Your task to perform on an android device: toggle notifications settings in the gmail app Image 0: 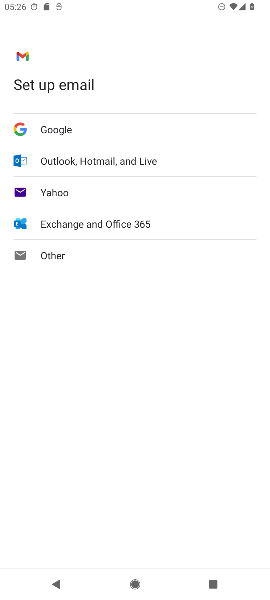
Step 0: press home button
Your task to perform on an android device: toggle notifications settings in the gmail app Image 1: 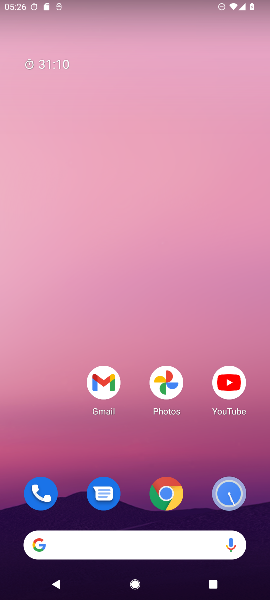
Step 1: drag from (65, 461) to (71, 213)
Your task to perform on an android device: toggle notifications settings in the gmail app Image 2: 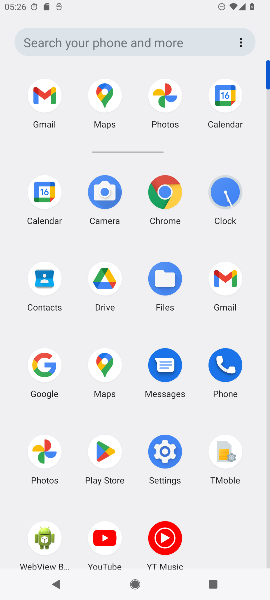
Step 2: click (224, 278)
Your task to perform on an android device: toggle notifications settings in the gmail app Image 3: 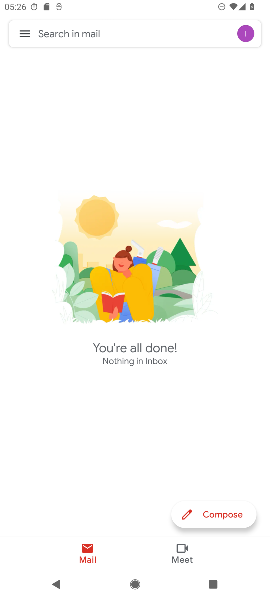
Step 3: click (30, 35)
Your task to perform on an android device: toggle notifications settings in the gmail app Image 4: 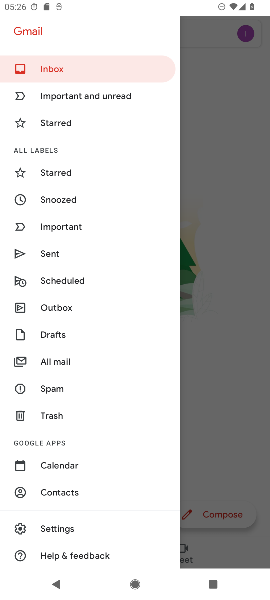
Step 4: click (110, 531)
Your task to perform on an android device: toggle notifications settings in the gmail app Image 5: 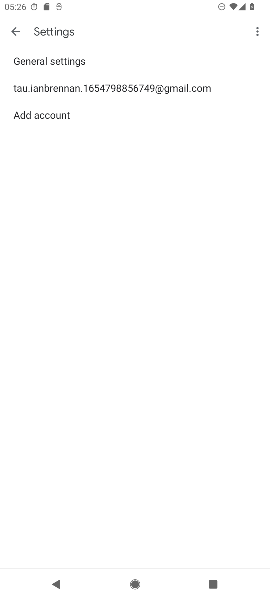
Step 5: click (148, 83)
Your task to perform on an android device: toggle notifications settings in the gmail app Image 6: 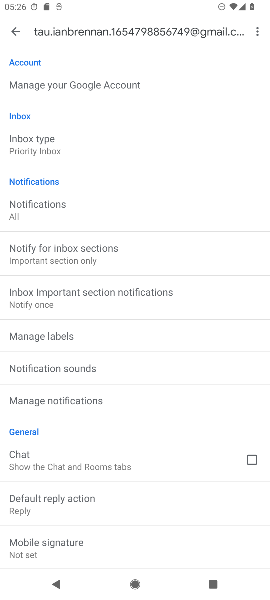
Step 6: drag from (205, 375) to (223, 278)
Your task to perform on an android device: toggle notifications settings in the gmail app Image 7: 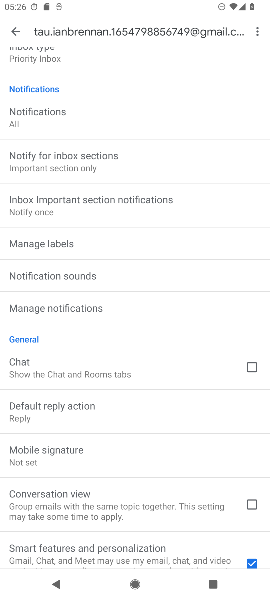
Step 7: drag from (190, 409) to (202, 315)
Your task to perform on an android device: toggle notifications settings in the gmail app Image 8: 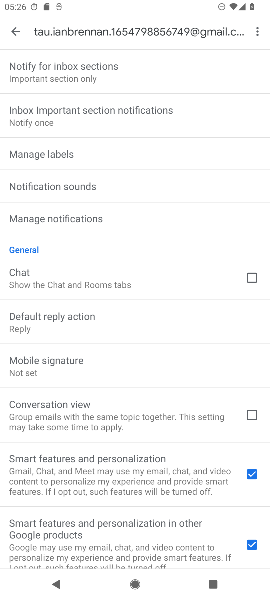
Step 8: drag from (185, 478) to (193, 345)
Your task to perform on an android device: toggle notifications settings in the gmail app Image 9: 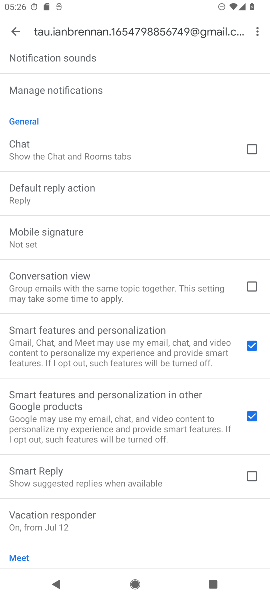
Step 9: drag from (159, 423) to (158, 309)
Your task to perform on an android device: toggle notifications settings in the gmail app Image 10: 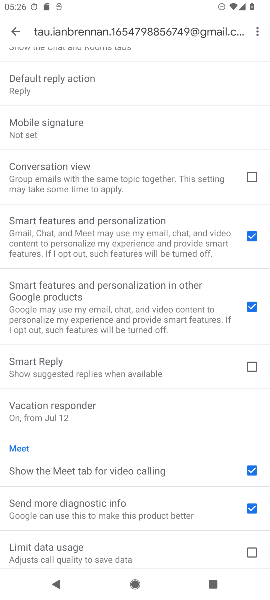
Step 10: drag from (145, 418) to (154, 295)
Your task to perform on an android device: toggle notifications settings in the gmail app Image 11: 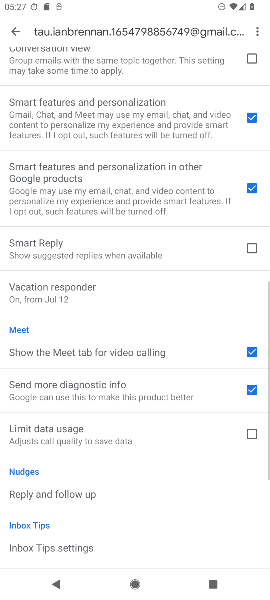
Step 11: drag from (159, 453) to (174, 306)
Your task to perform on an android device: toggle notifications settings in the gmail app Image 12: 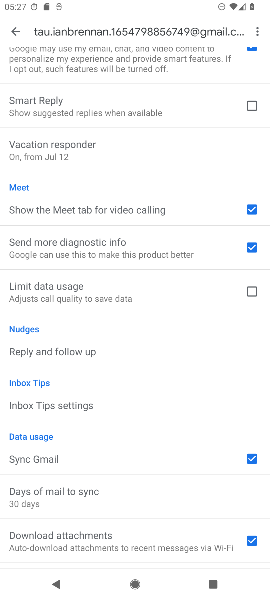
Step 12: drag from (187, 180) to (197, 431)
Your task to perform on an android device: toggle notifications settings in the gmail app Image 13: 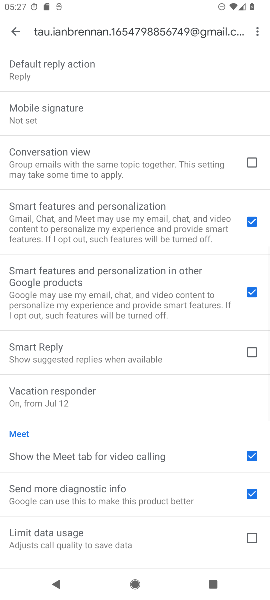
Step 13: drag from (184, 211) to (194, 347)
Your task to perform on an android device: toggle notifications settings in the gmail app Image 14: 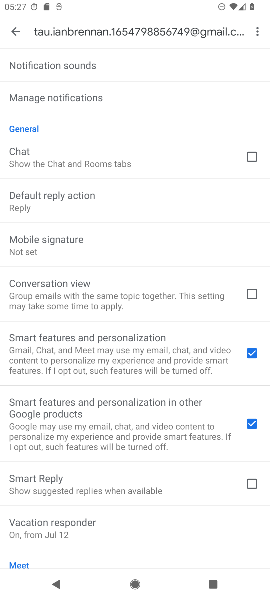
Step 14: drag from (171, 184) to (195, 348)
Your task to perform on an android device: toggle notifications settings in the gmail app Image 15: 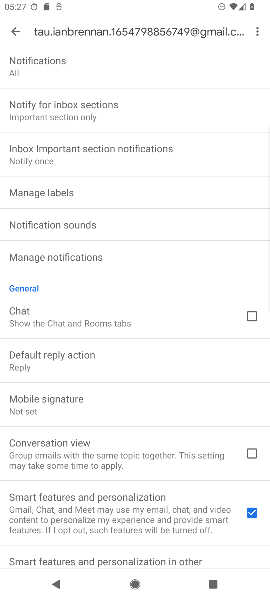
Step 15: drag from (193, 171) to (201, 310)
Your task to perform on an android device: toggle notifications settings in the gmail app Image 16: 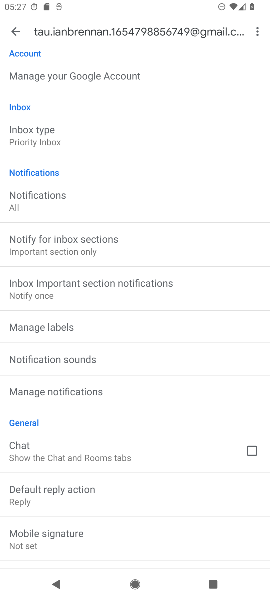
Step 16: click (149, 396)
Your task to perform on an android device: toggle notifications settings in the gmail app Image 17: 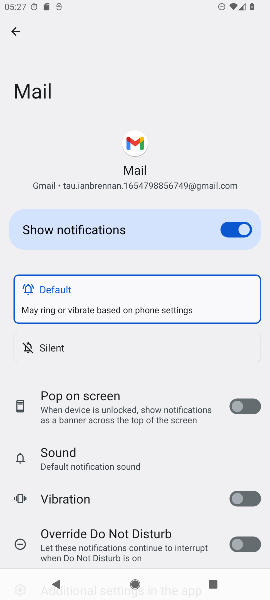
Step 17: click (230, 234)
Your task to perform on an android device: toggle notifications settings in the gmail app Image 18: 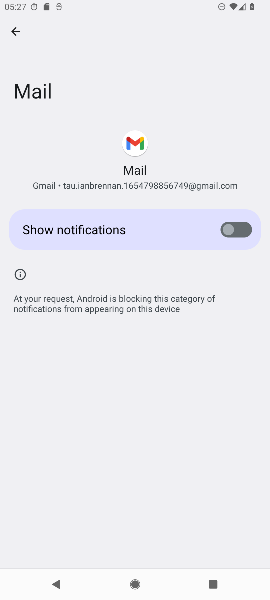
Step 18: task complete